Your task to perform on an android device: How do I get to the nearest Verizon Store? Image 0: 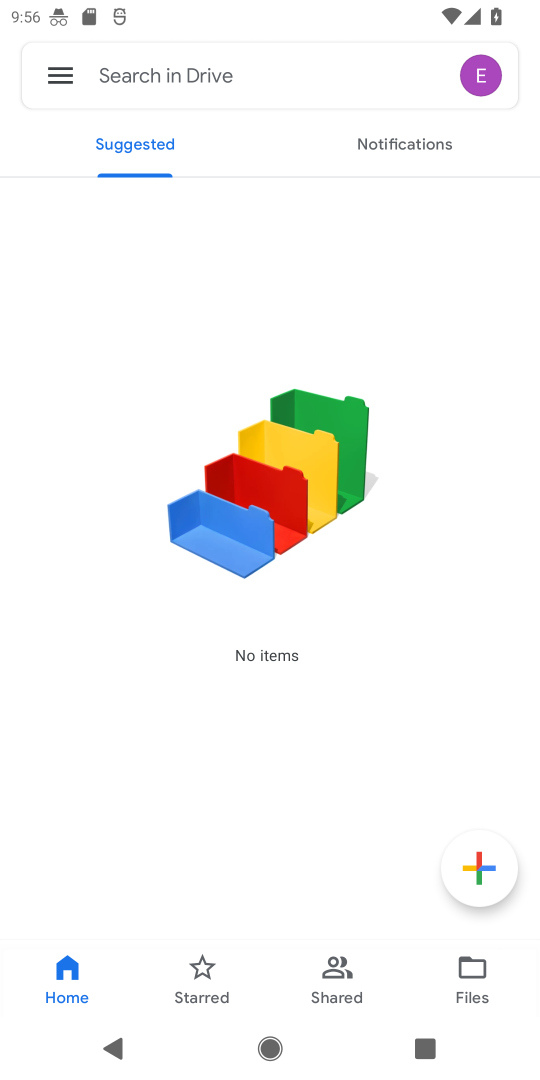
Step 0: press home button
Your task to perform on an android device: How do I get to the nearest Verizon Store? Image 1: 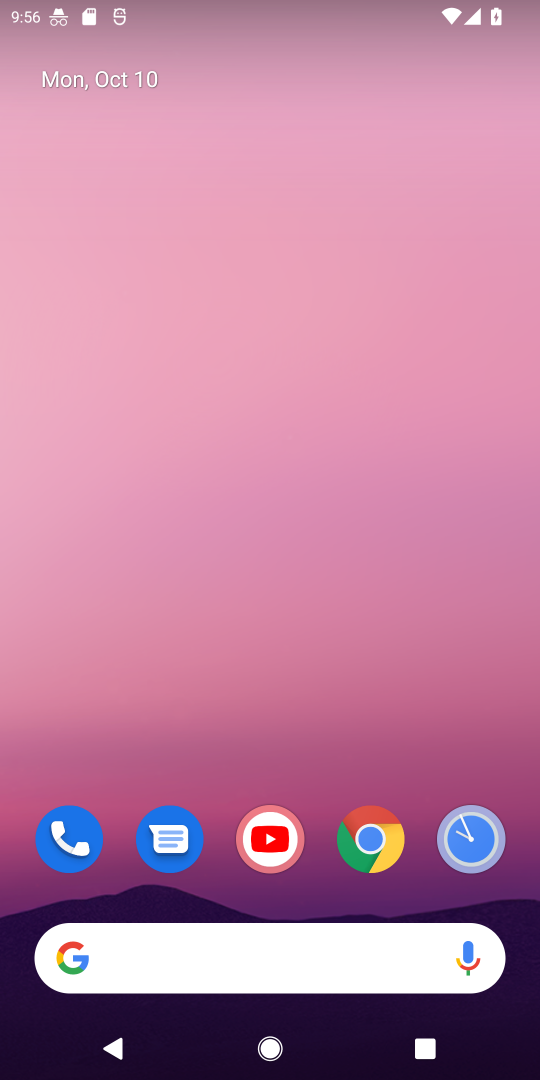
Step 1: drag from (327, 869) to (390, 94)
Your task to perform on an android device: How do I get to the nearest Verizon Store? Image 2: 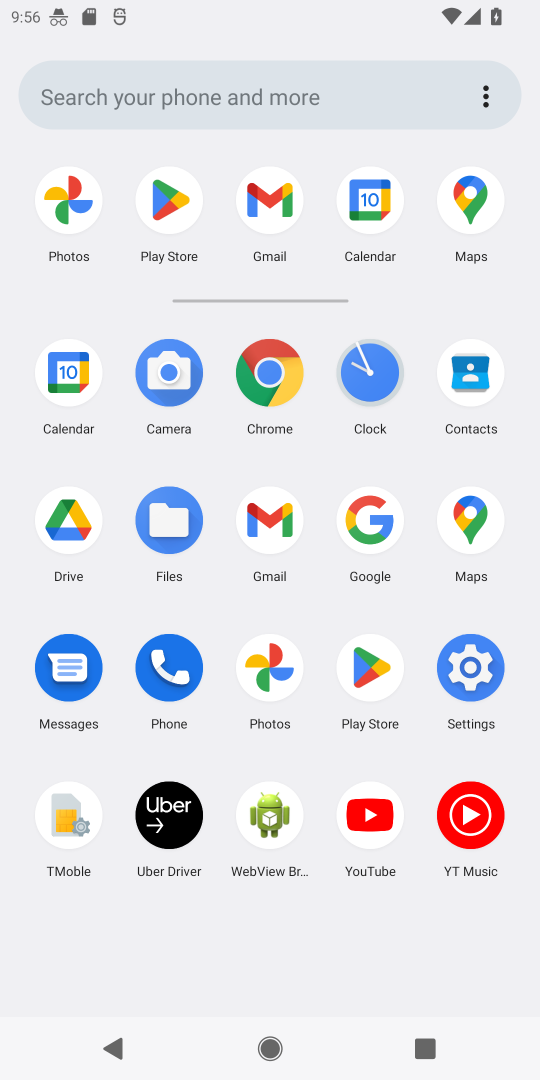
Step 2: click (281, 371)
Your task to perform on an android device: How do I get to the nearest Verizon Store? Image 3: 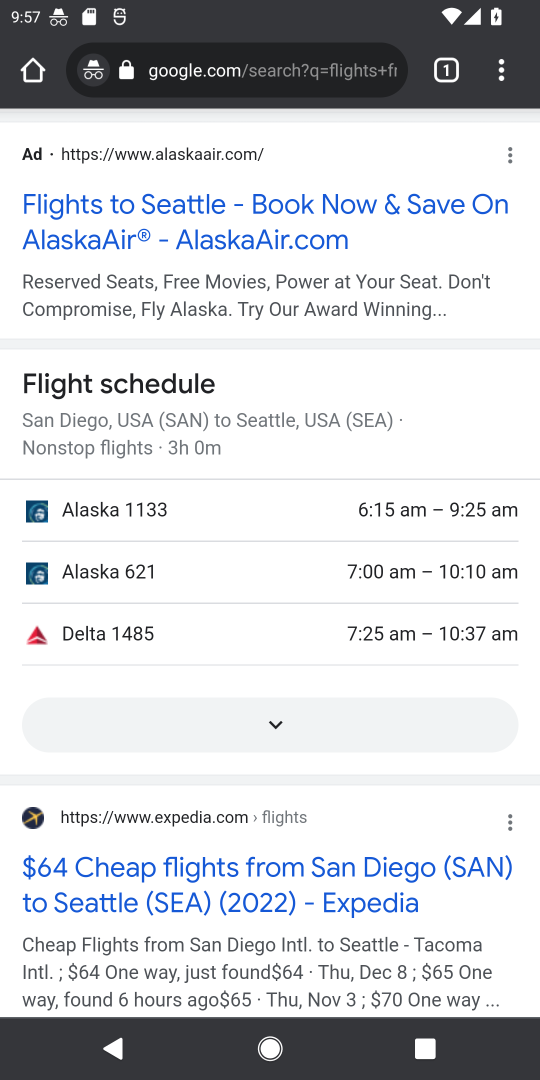
Step 3: click (276, 78)
Your task to perform on an android device: How do I get to the nearest Verizon Store? Image 4: 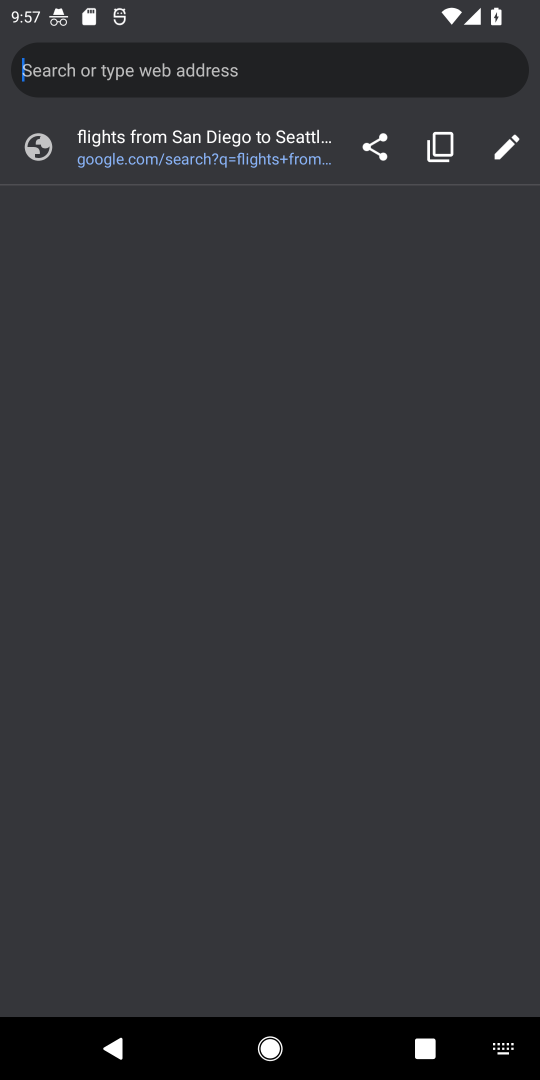
Step 4: type "How do I get to the nearest Verizon Store?"
Your task to perform on an android device: How do I get to the nearest Verizon Store? Image 5: 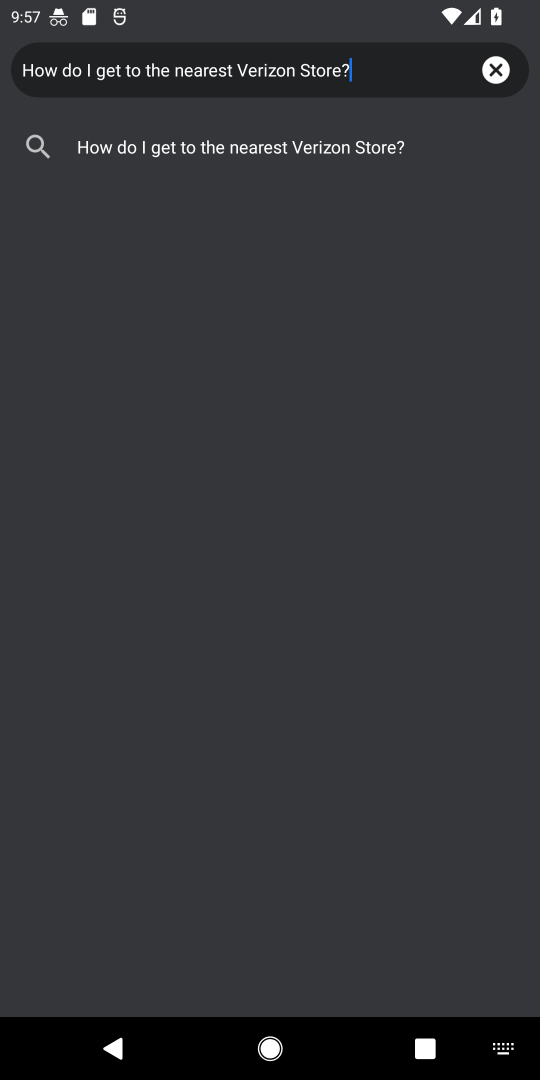
Step 5: press enter
Your task to perform on an android device: How do I get to the nearest Verizon Store? Image 6: 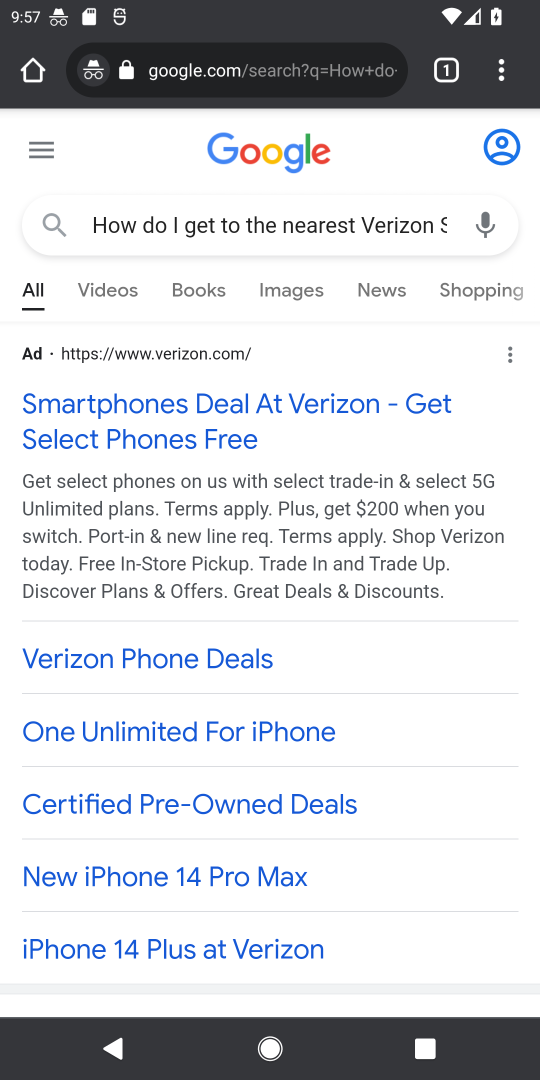
Step 6: task complete